Your task to perform on an android device: turn on sleep mode Image 0: 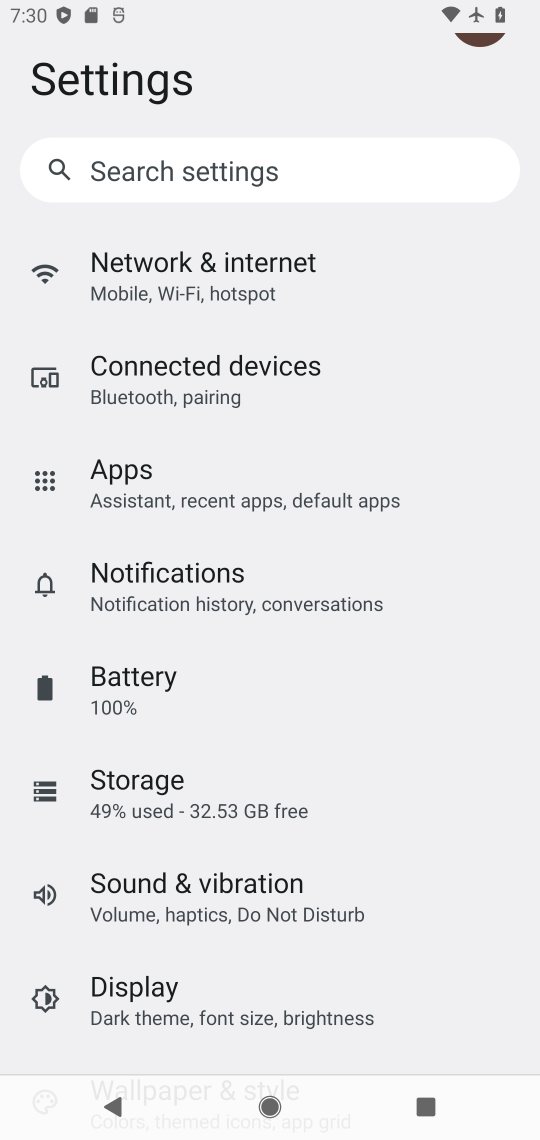
Step 0: click (123, 993)
Your task to perform on an android device: turn on sleep mode Image 1: 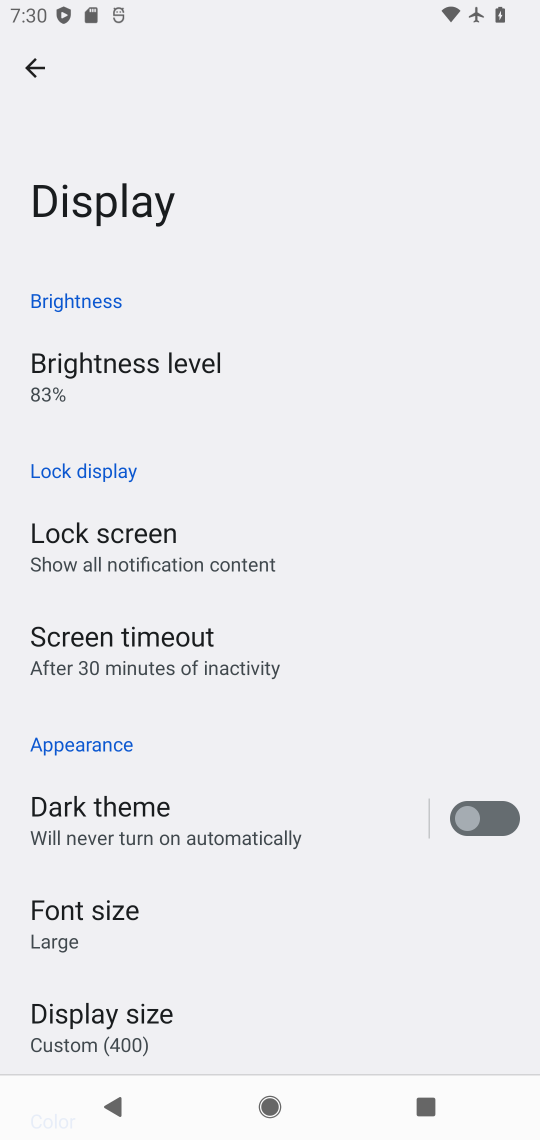
Step 1: task complete